Your task to perform on an android device: install app "Messages" Image 0: 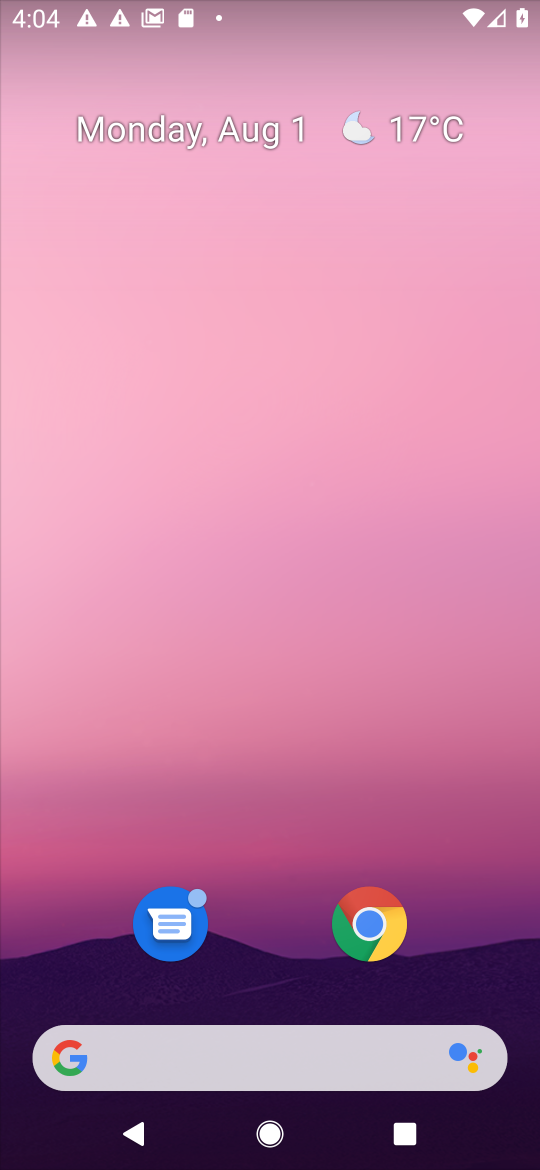
Step 0: press home button
Your task to perform on an android device: install app "Messages" Image 1: 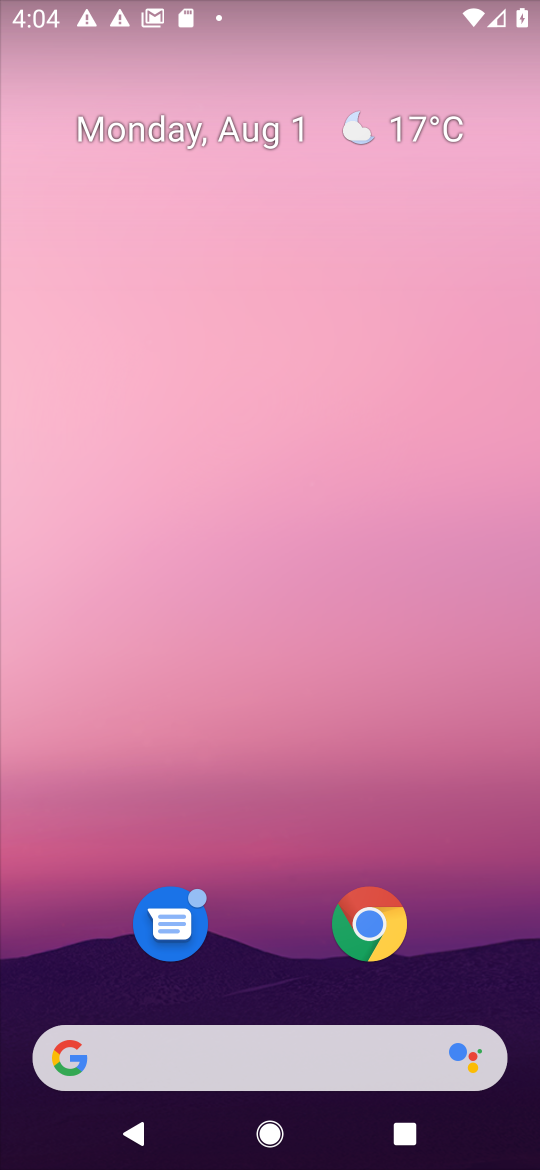
Step 1: drag from (334, 1083) to (316, 176)
Your task to perform on an android device: install app "Messages" Image 2: 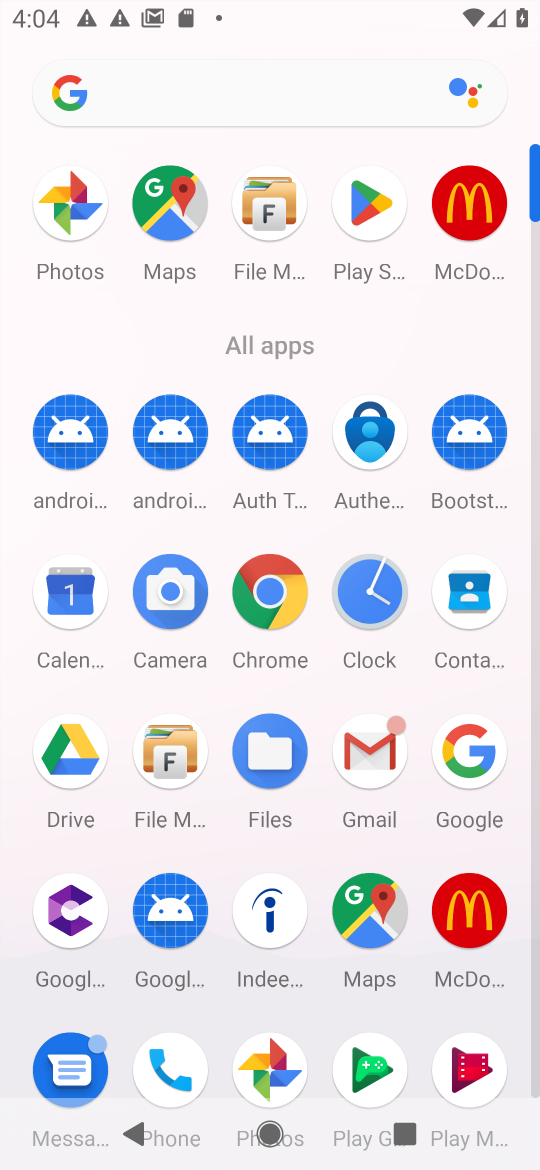
Step 2: click (369, 194)
Your task to perform on an android device: install app "Messages" Image 3: 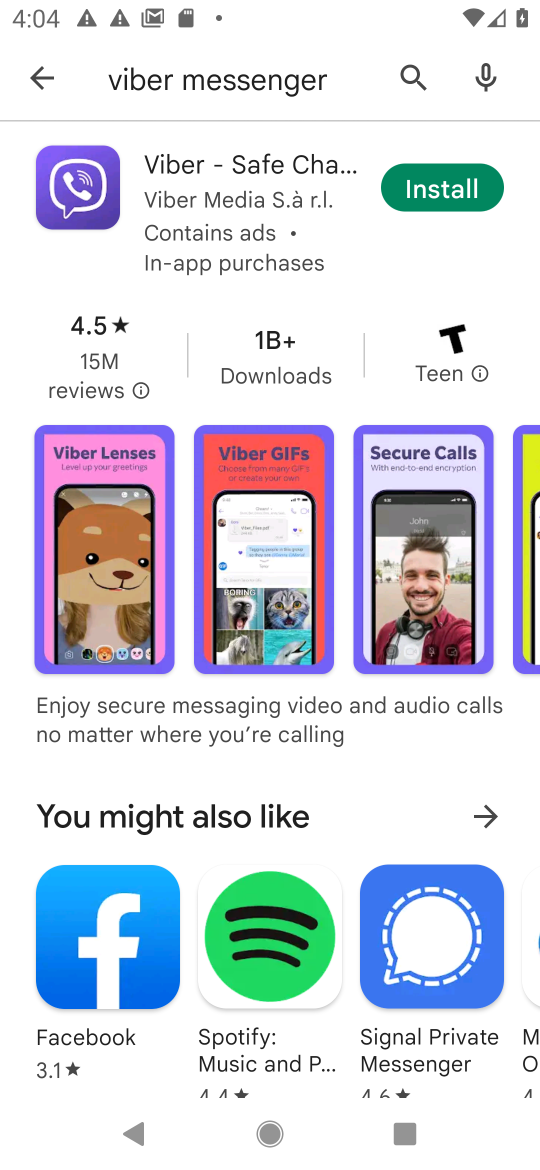
Step 3: click (412, 67)
Your task to perform on an android device: install app "Messages" Image 4: 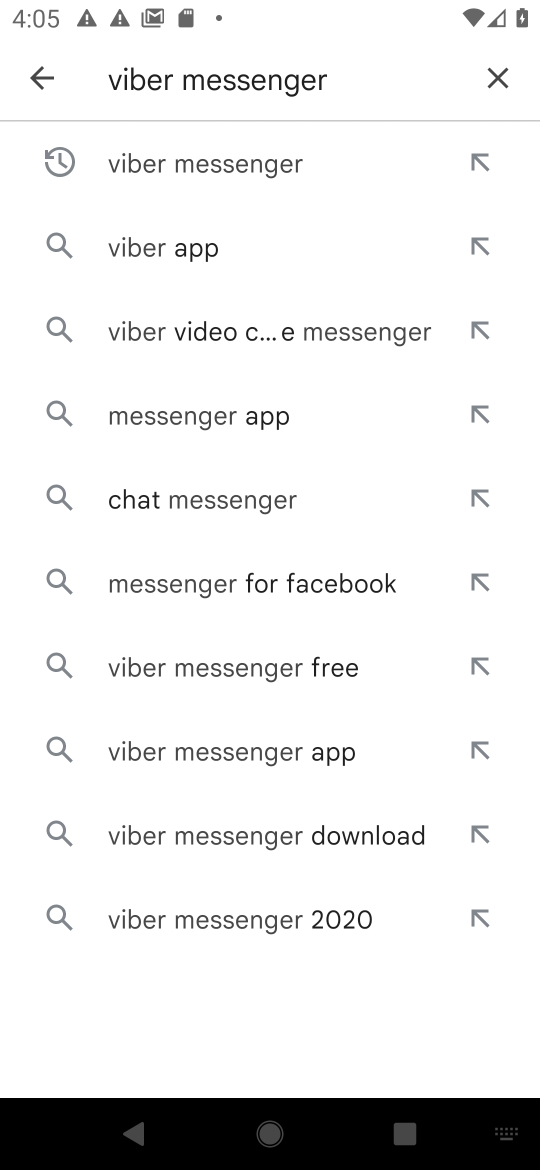
Step 4: click (499, 76)
Your task to perform on an android device: install app "Messages" Image 5: 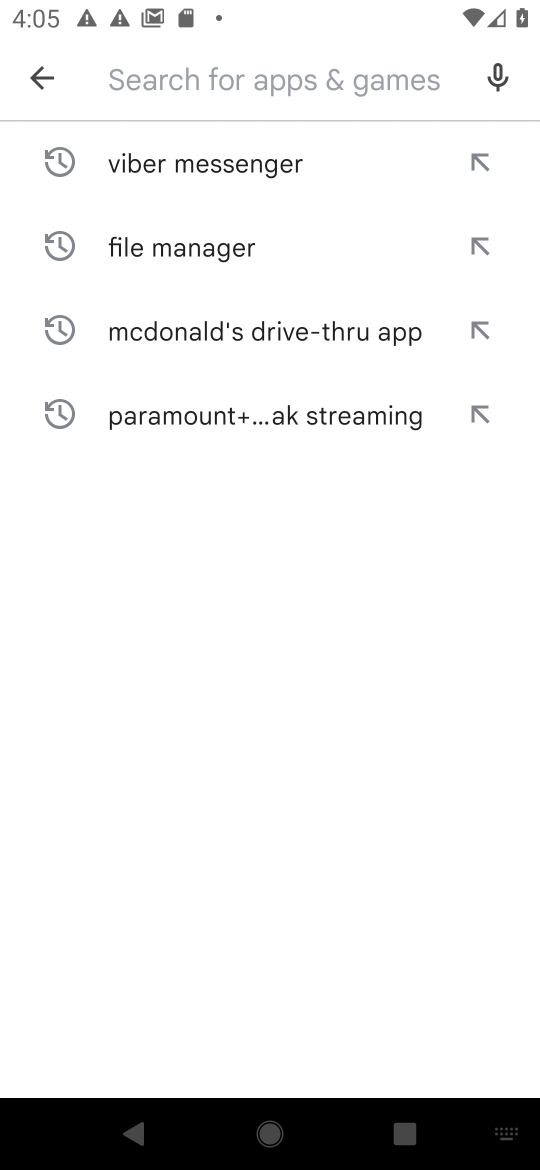
Step 5: type "Messages"
Your task to perform on an android device: install app "Messages" Image 6: 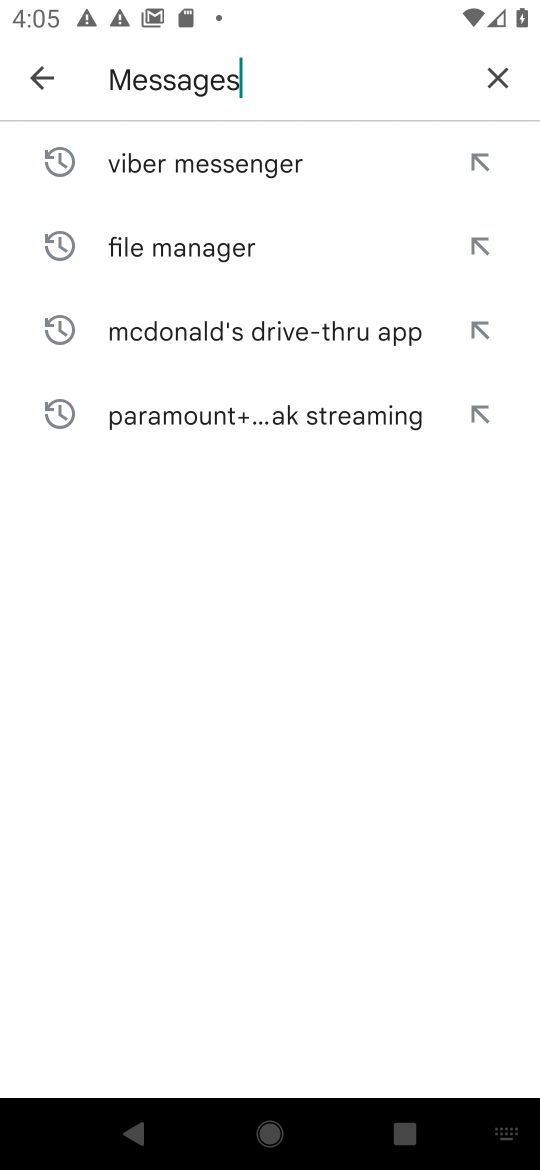
Step 6: type ""
Your task to perform on an android device: install app "Messages" Image 7: 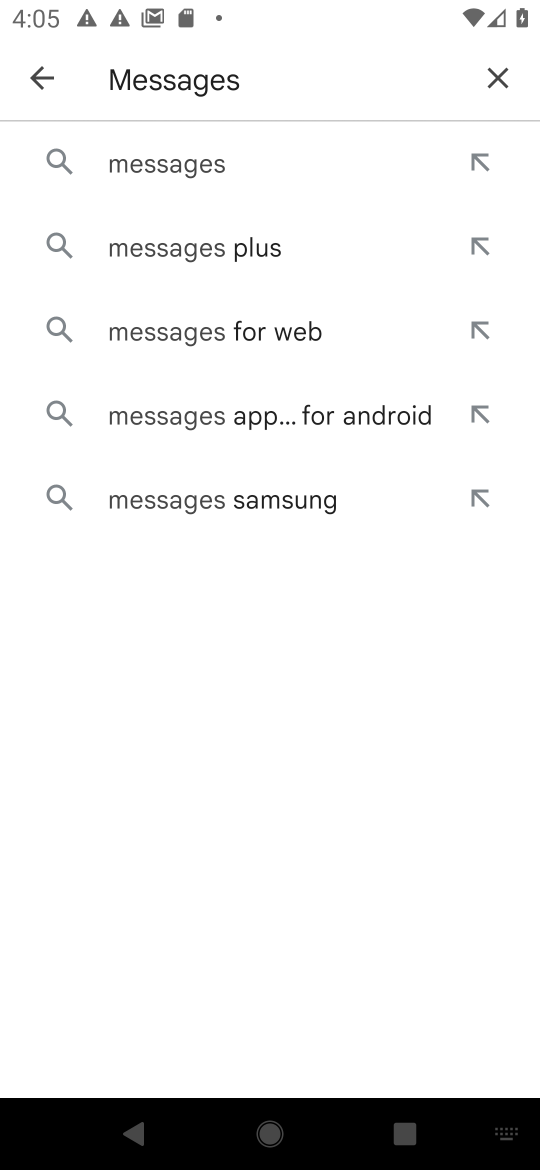
Step 7: click (204, 166)
Your task to perform on an android device: install app "Messages" Image 8: 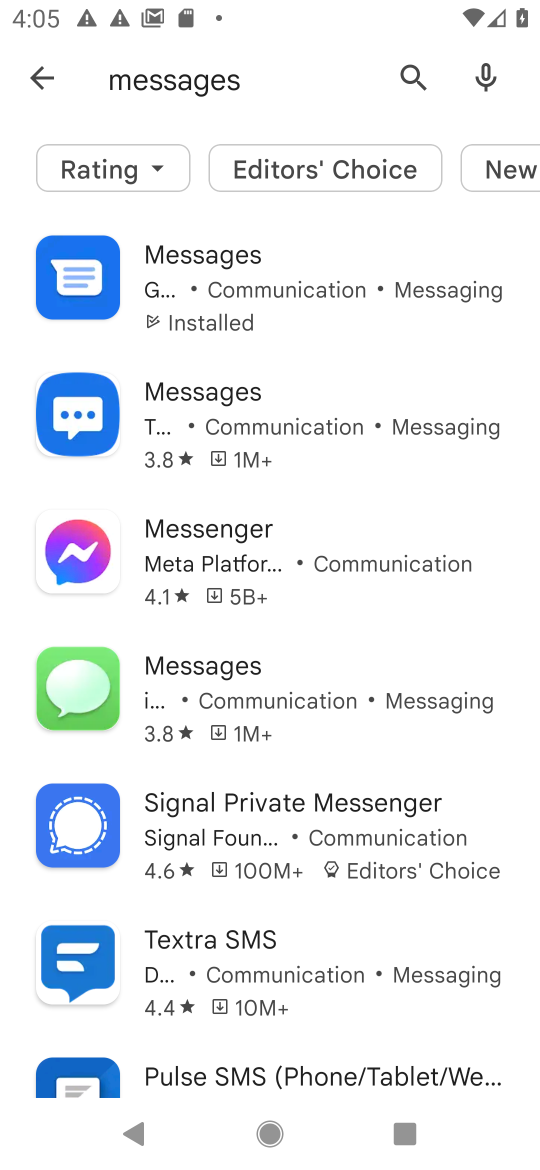
Step 8: click (217, 259)
Your task to perform on an android device: install app "Messages" Image 9: 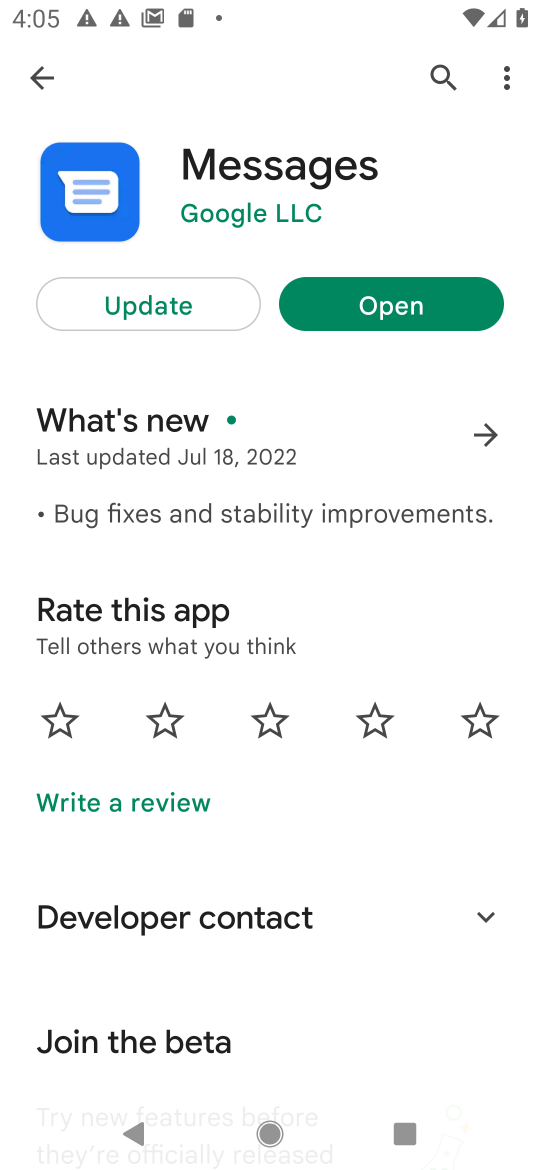
Step 9: task complete